Your task to perform on an android device: change the clock display to show seconds Image 0: 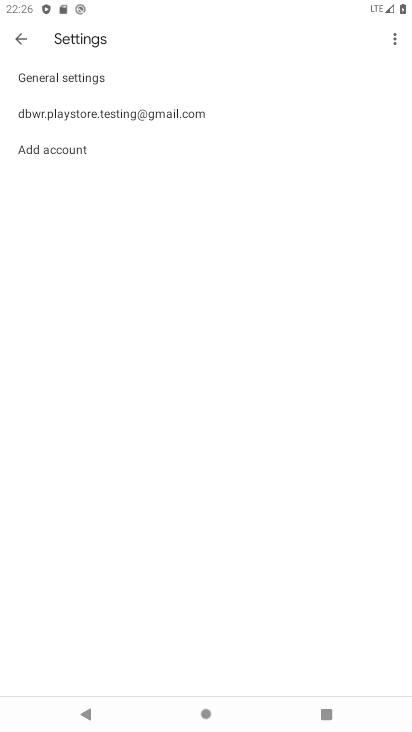
Step 0: press home button
Your task to perform on an android device: change the clock display to show seconds Image 1: 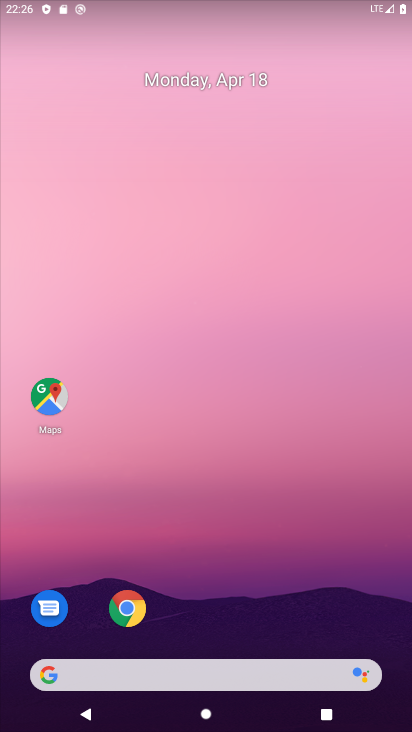
Step 1: drag from (218, 602) to (207, 76)
Your task to perform on an android device: change the clock display to show seconds Image 2: 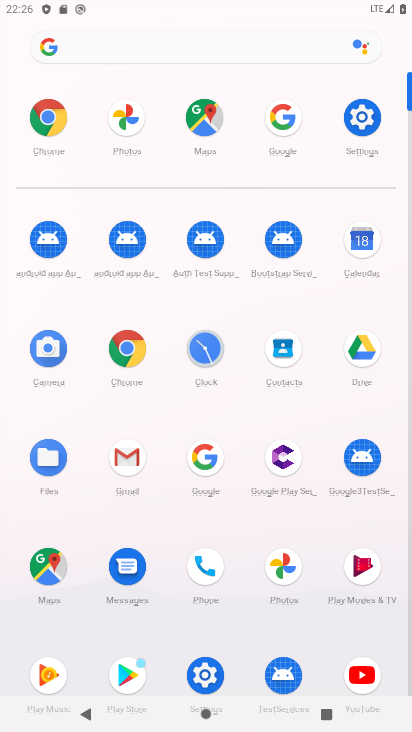
Step 2: click (215, 347)
Your task to perform on an android device: change the clock display to show seconds Image 3: 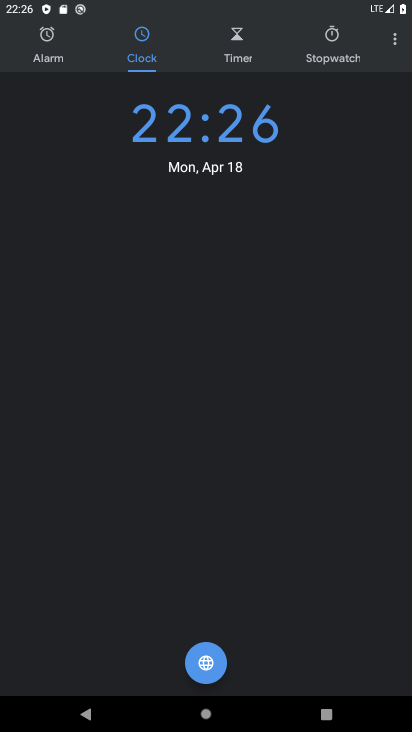
Step 3: click (390, 40)
Your task to perform on an android device: change the clock display to show seconds Image 4: 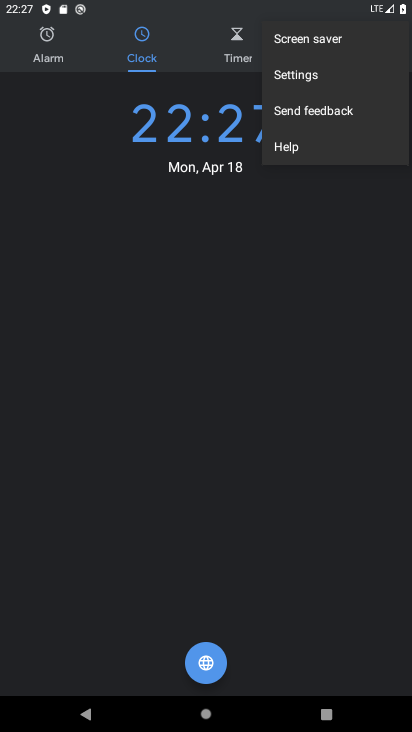
Step 4: click (316, 74)
Your task to perform on an android device: change the clock display to show seconds Image 5: 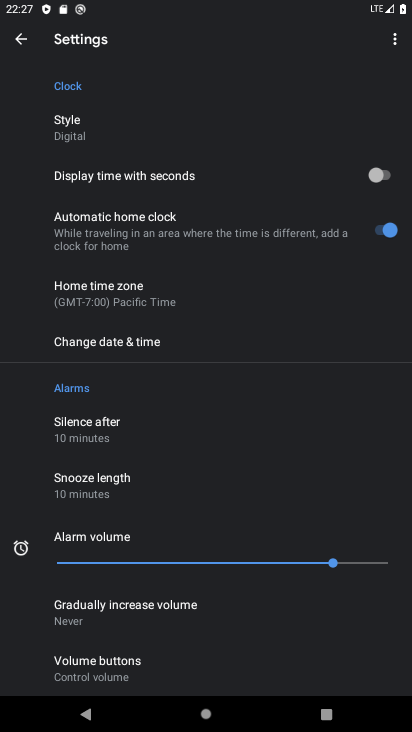
Step 5: click (375, 173)
Your task to perform on an android device: change the clock display to show seconds Image 6: 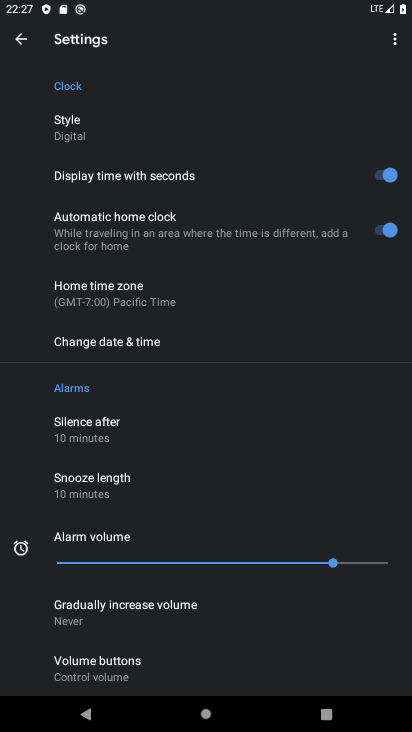
Step 6: task complete